Your task to perform on an android device: turn on airplane mode Image 0: 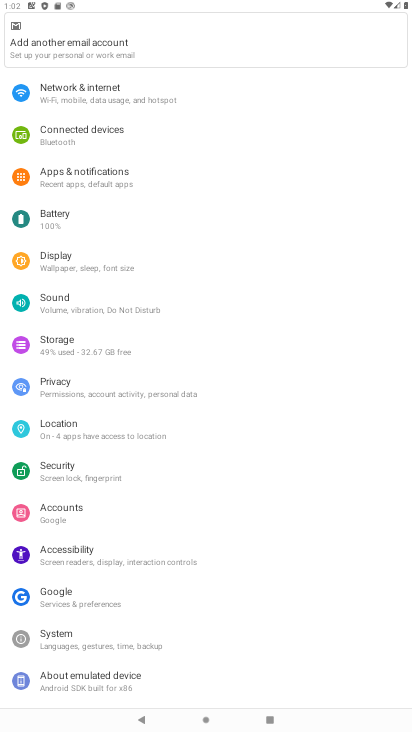
Step 0: click (85, 83)
Your task to perform on an android device: turn on airplane mode Image 1: 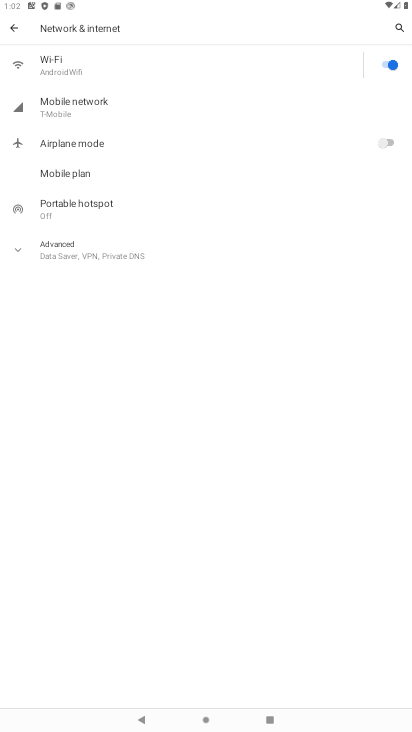
Step 1: click (77, 242)
Your task to perform on an android device: turn on airplane mode Image 2: 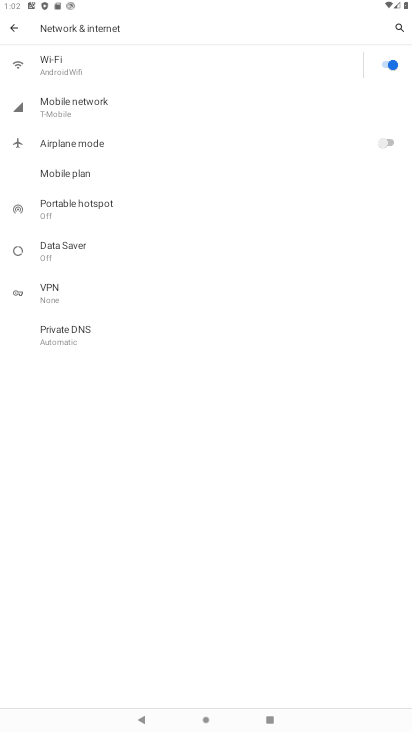
Step 2: click (381, 140)
Your task to perform on an android device: turn on airplane mode Image 3: 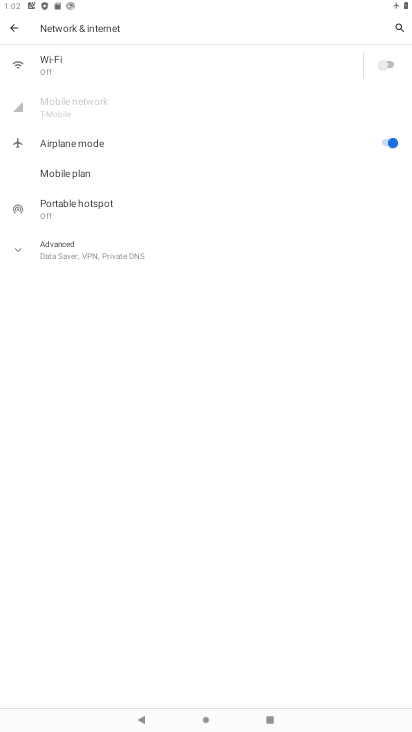
Step 3: task complete